Your task to perform on an android device: turn off airplane mode Image 0: 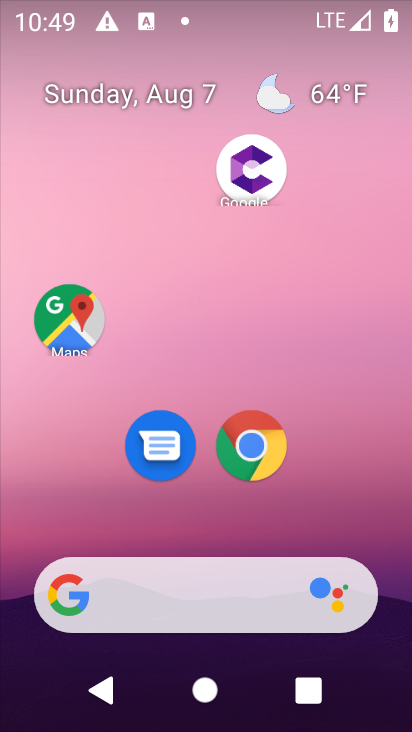
Step 0: press home button
Your task to perform on an android device: turn off airplane mode Image 1: 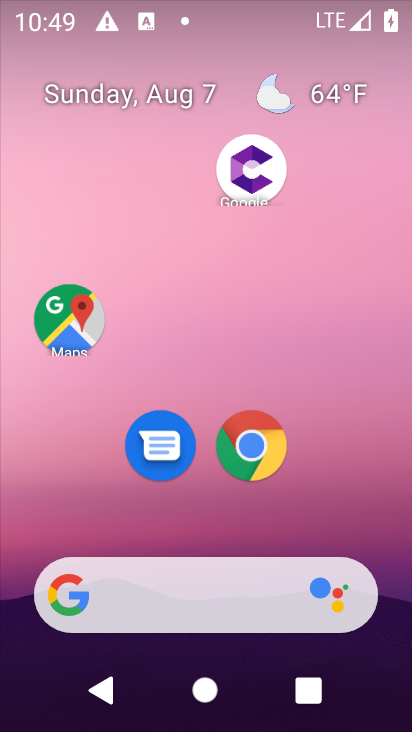
Step 1: task complete